Your task to perform on an android device: Open Google Image 0: 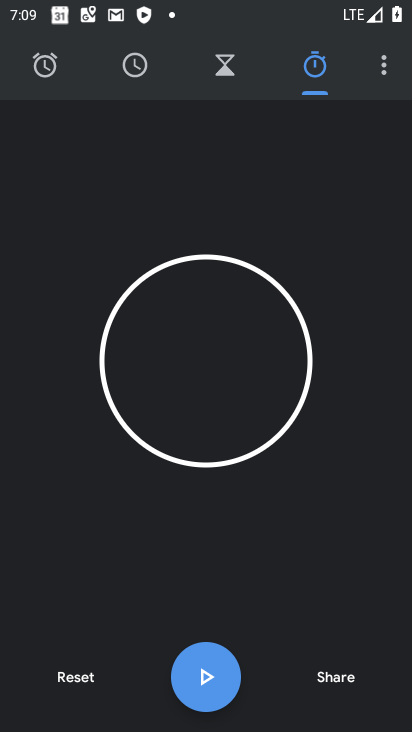
Step 0: press home button
Your task to perform on an android device: Open Google Image 1: 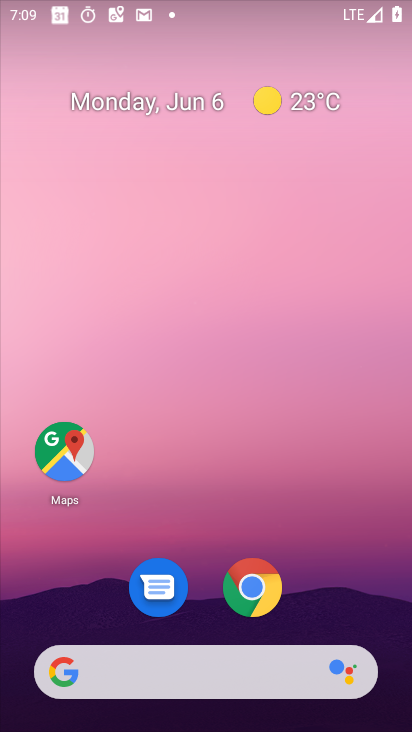
Step 1: drag from (395, 655) to (313, 123)
Your task to perform on an android device: Open Google Image 2: 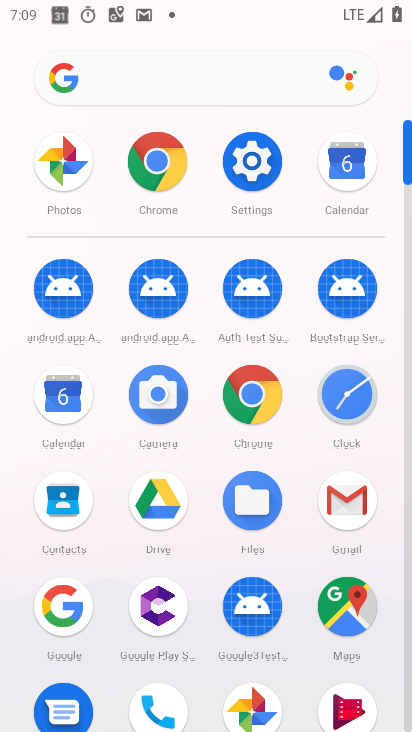
Step 2: click (75, 605)
Your task to perform on an android device: Open Google Image 3: 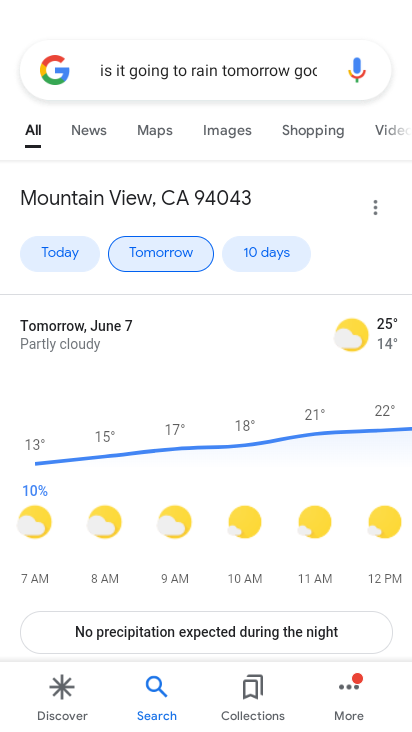
Step 3: task complete